Your task to perform on an android device: What's on my calendar tomorrow? Image 0: 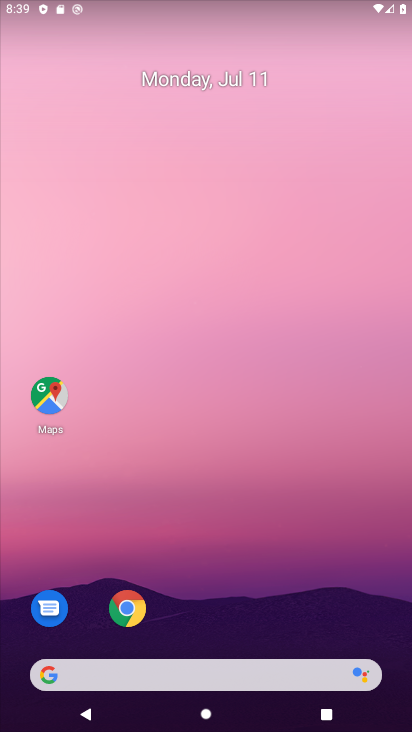
Step 0: drag from (210, 355) to (210, 15)
Your task to perform on an android device: What's on my calendar tomorrow? Image 1: 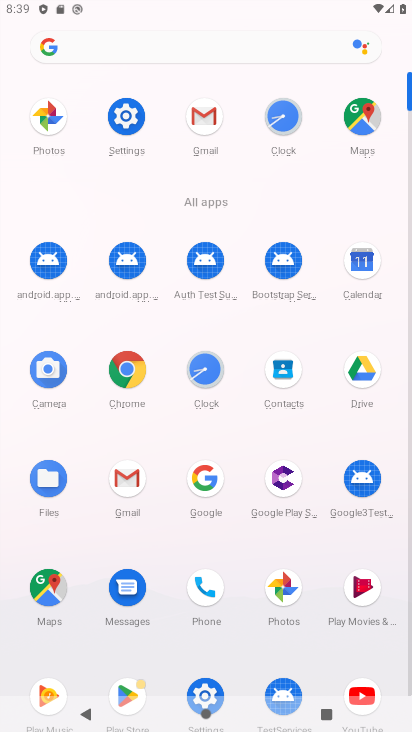
Step 1: click (367, 288)
Your task to perform on an android device: What's on my calendar tomorrow? Image 2: 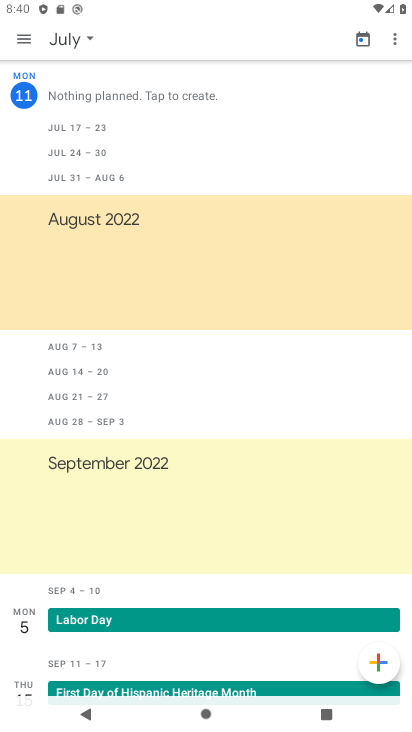
Step 2: click (28, 38)
Your task to perform on an android device: What's on my calendar tomorrow? Image 3: 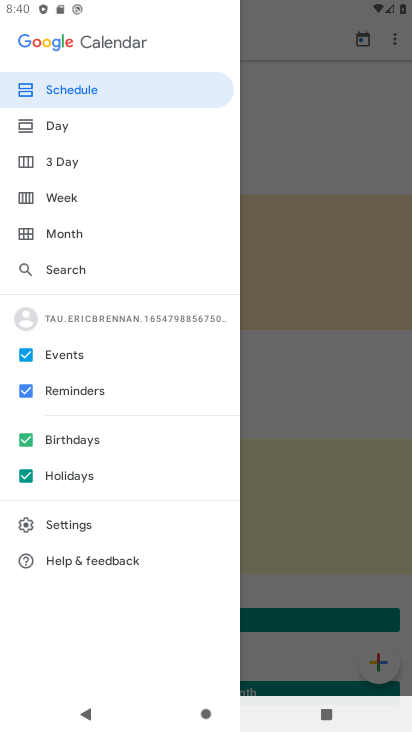
Step 3: click (56, 122)
Your task to perform on an android device: What's on my calendar tomorrow? Image 4: 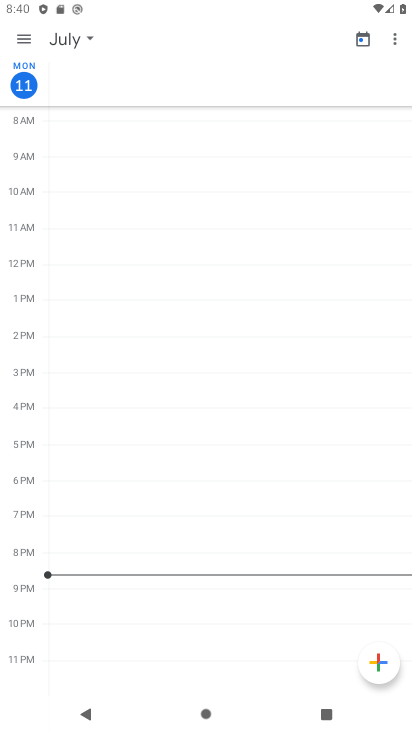
Step 4: click (23, 48)
Your task to perform on an android device: What's on my calendar tomorrow? Image 5: 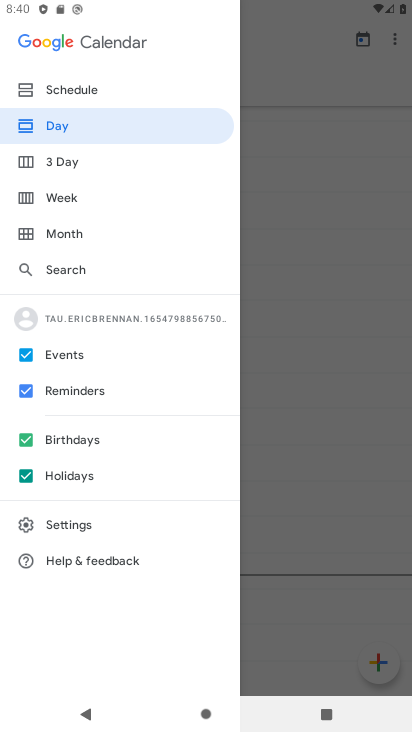
Step 5: click (78, 202)
Your task to perform on an android device: What's on my calendar tomorrow? Image 6: 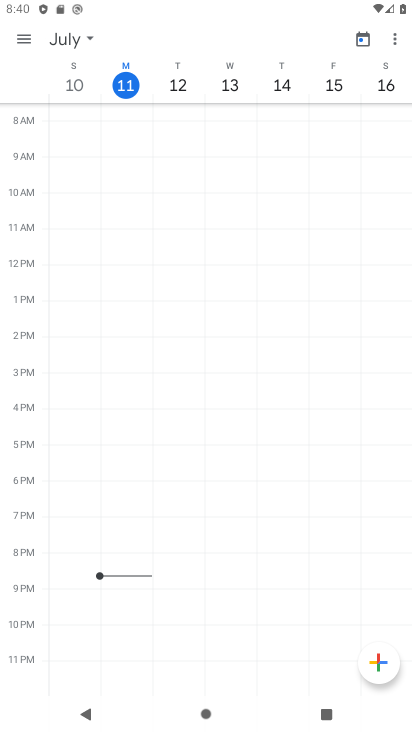
Step 6: task complete